Your task to perform on an android device: Go to Yahoo.com Image 0: 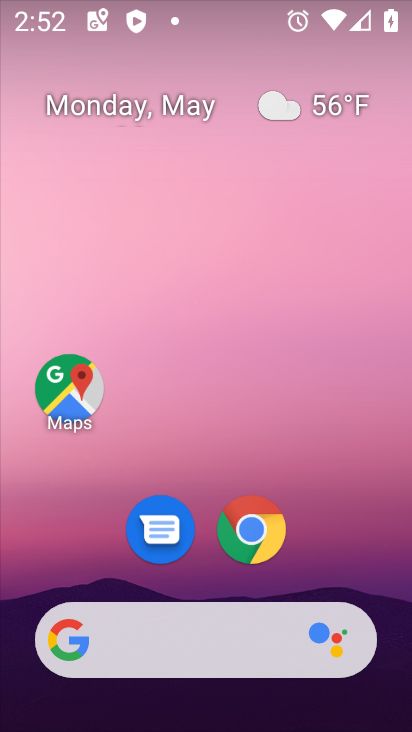
Step 0: click (242, 529)
Your task to perform on an android device: Go to Yahoo.com Image 1: 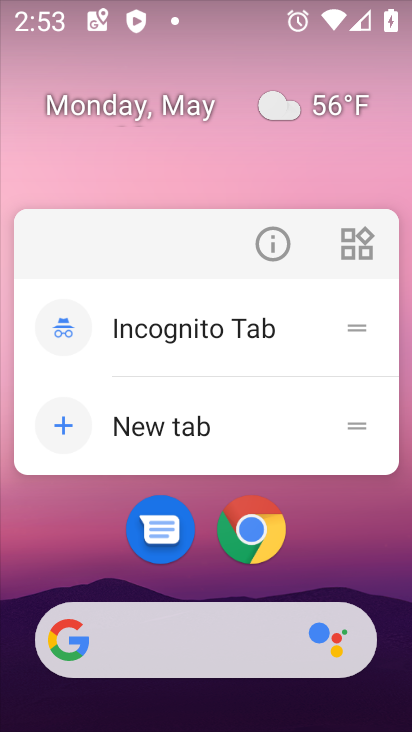
Step 1: click (252, 532)
Your task to perform on an android device: Go to Yahoo.com Image 2: 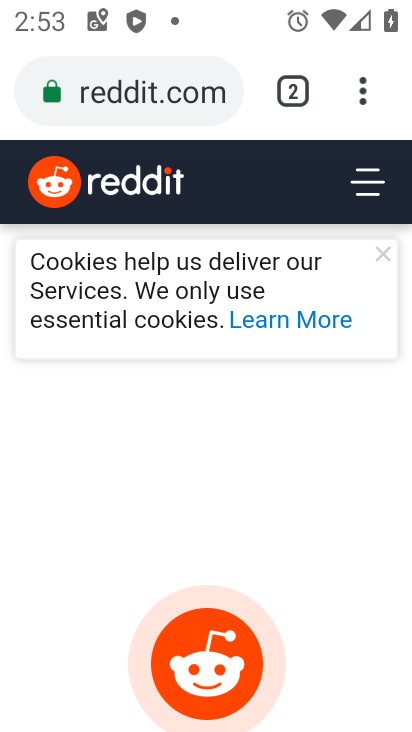
Step 2: click (154, 90)
Your task to perform on an android device: Go to Yahoo.com Image 3: 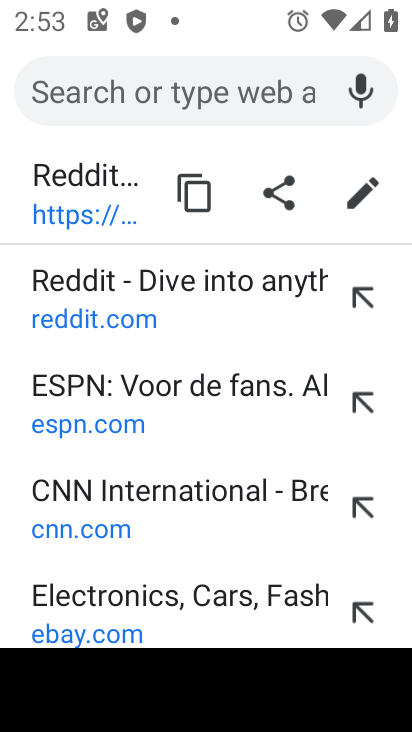
Step 3: type "yahoo.com"
Your task to perform on an android device: Go to Yahoo.com Image 4: 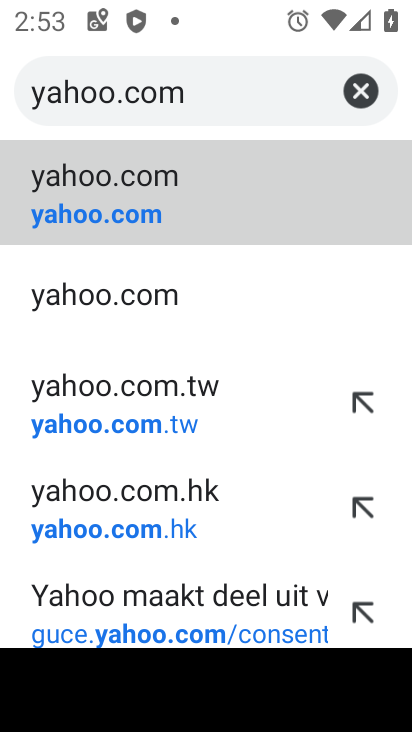
Step 4: click (31, 205)
Your task to perform on an android device: Go to Yahoo.com Image 5: 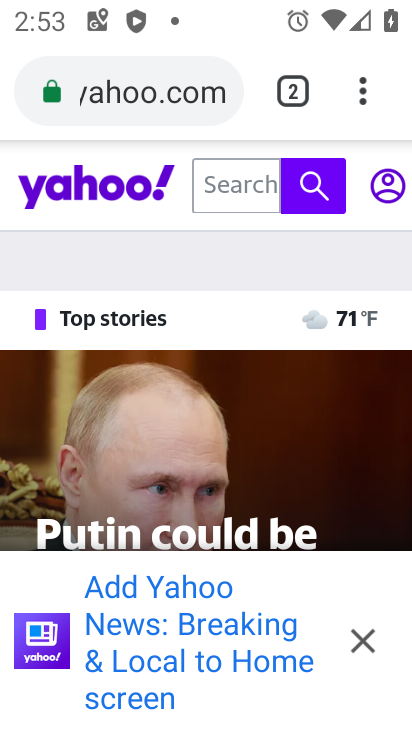
Step 5: task complete